Your task to perform on an android device: remove spam from my inbox in the gmail app Image 0: 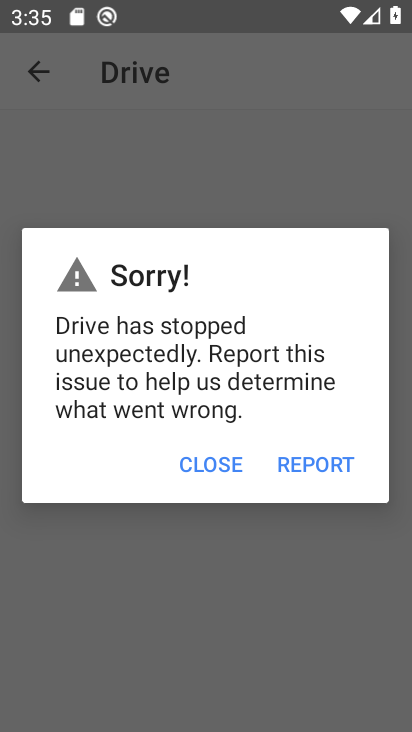
Step 0: press home button
Your task to perform on an android device: remove spam from my inbox in the gmail app Image 1: 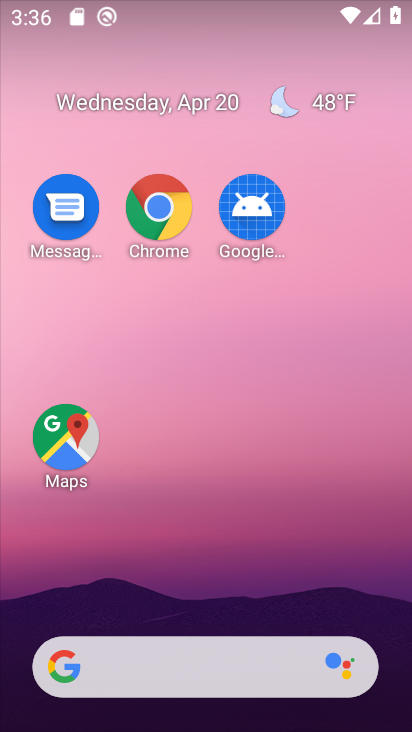
Step 1: drag from (280, 515) to (275, 352)
Your task to perform on an android device: remove spam from my inbox in the gmail app Image 2: 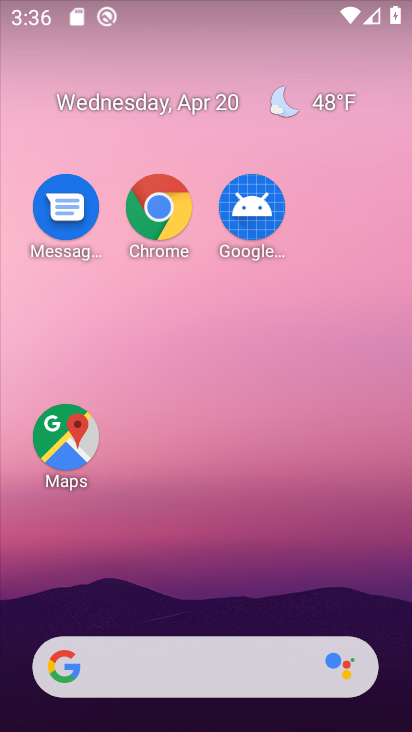
Step 2: drag from (296, 469) to (316, 0)
Your task to perform on an android device: remove spam from my inbox in the gmail app Image 3: 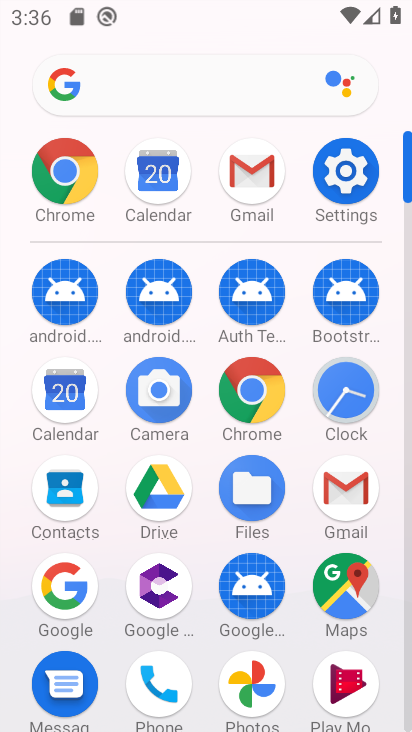
Step 3: click (355, 487)
Your task to perform on an android device: remove spam from my inbox in the gmail app Image 4: 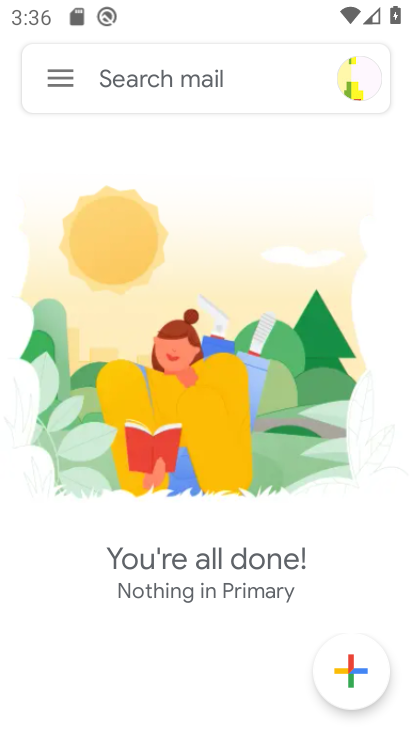
Step 4: click (50, 72)
Your task to perform on an android device: remove spam from my inbox in the gmail app Image 5: 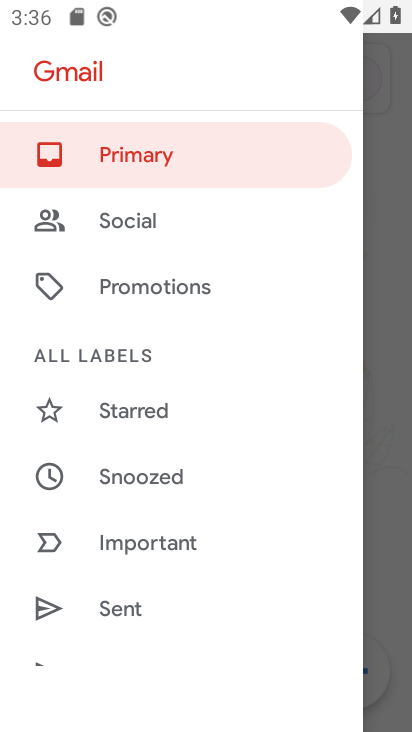
Step 5: drag from (137, 531) to (178, 145)
Your task to perform on an android device: remove spam from my inbox in the gmail app Image 6: 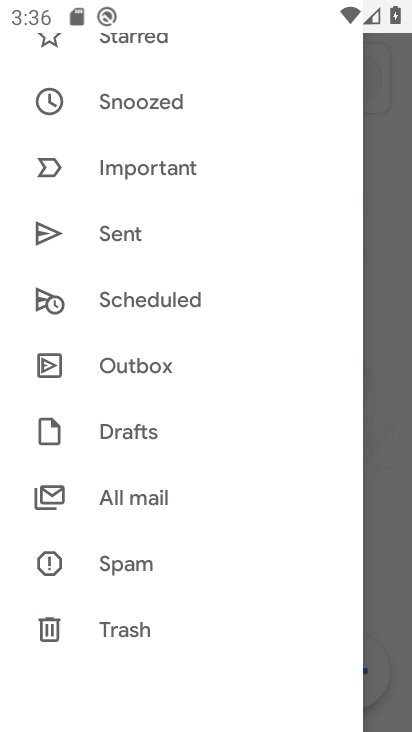
Step 6: click (200, 283)
Your task to perform on an android device: remove spam from my inbox in the gmail app Image 7: 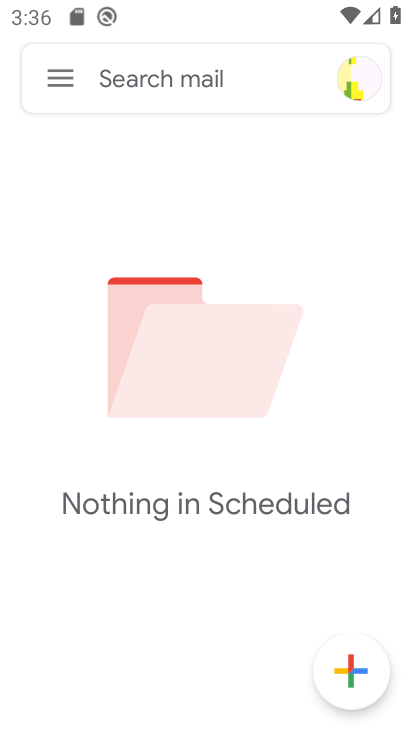
Step 7: click (63, 69)
Your task to perform on an android device: remove spam from my inbox in the gmail app Image 8: 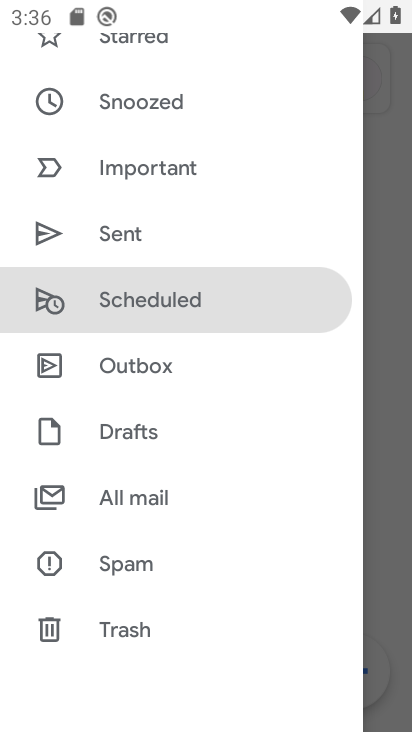
Step 8: click (176, 562)
Your task to perform on an android device: remove spam from my inbox in the gmail app Image 9: 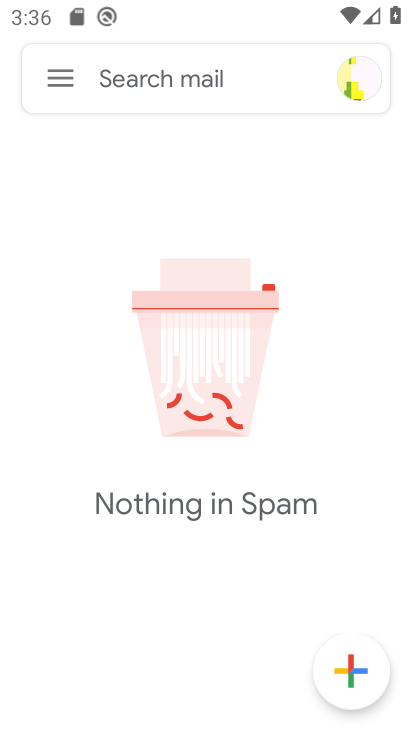
Step 9: task complete